Your task to perform on an android device: install app "Pinterest" Image 0: 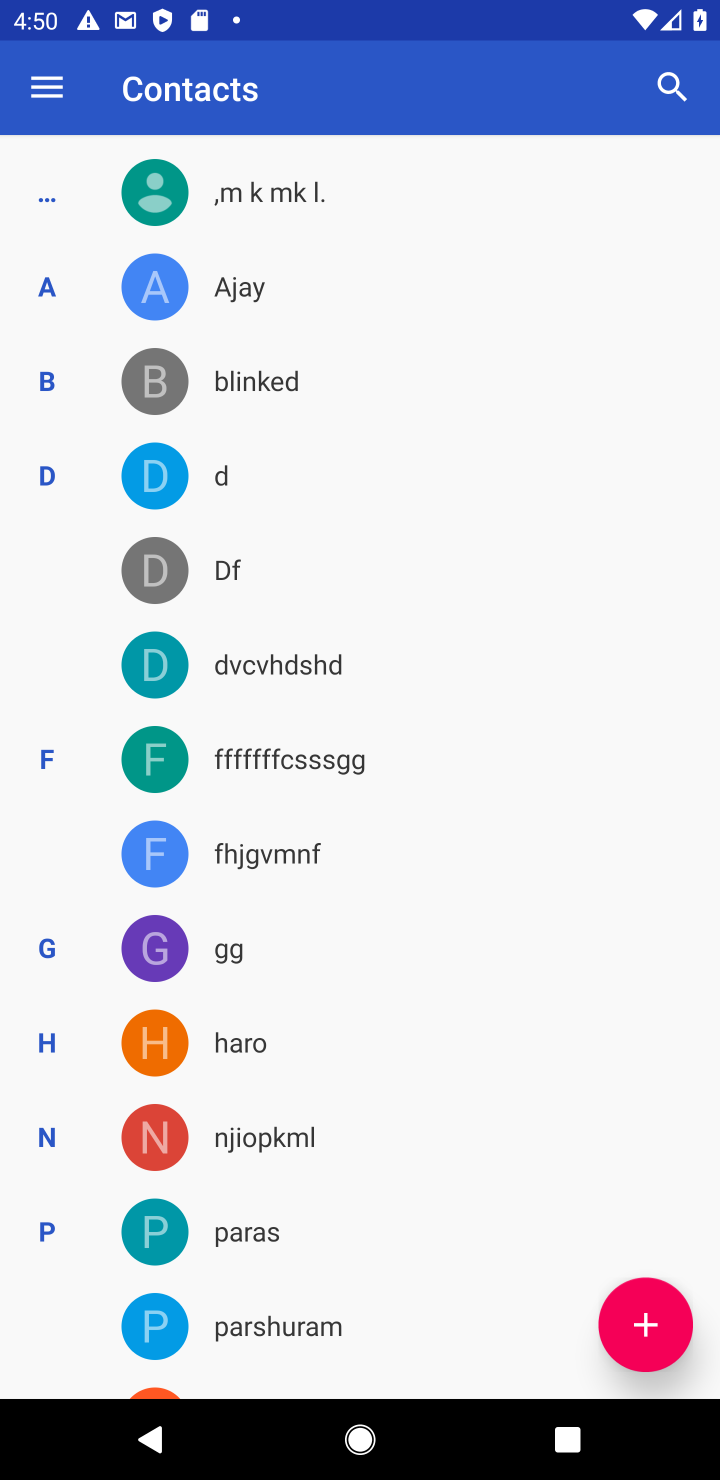
Step 0: press home button
Your task to perform on an android device: install app "Pinterest" Image 1: 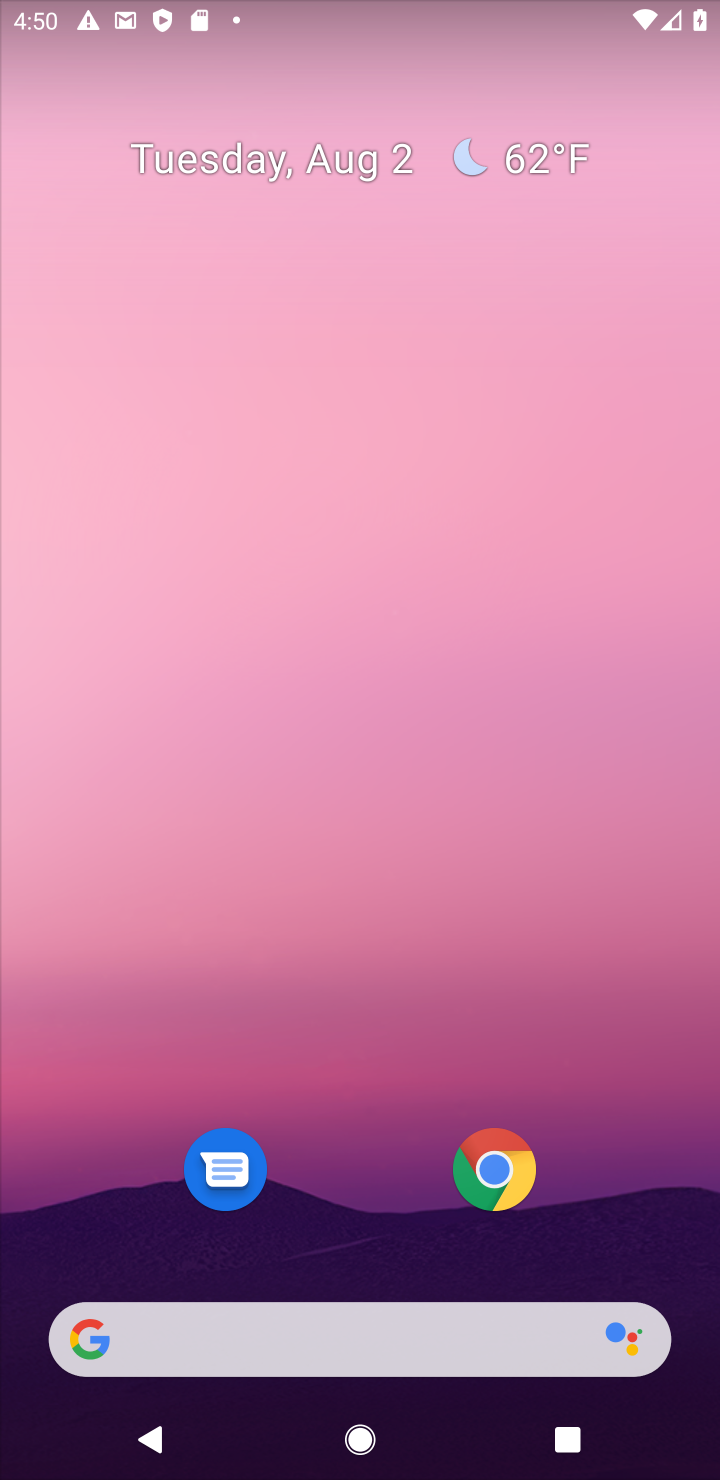
Step 1: drag from (610, 1056) to (484, 522)
Your task to perform on an android device: install app "Pinterest" Image 2: 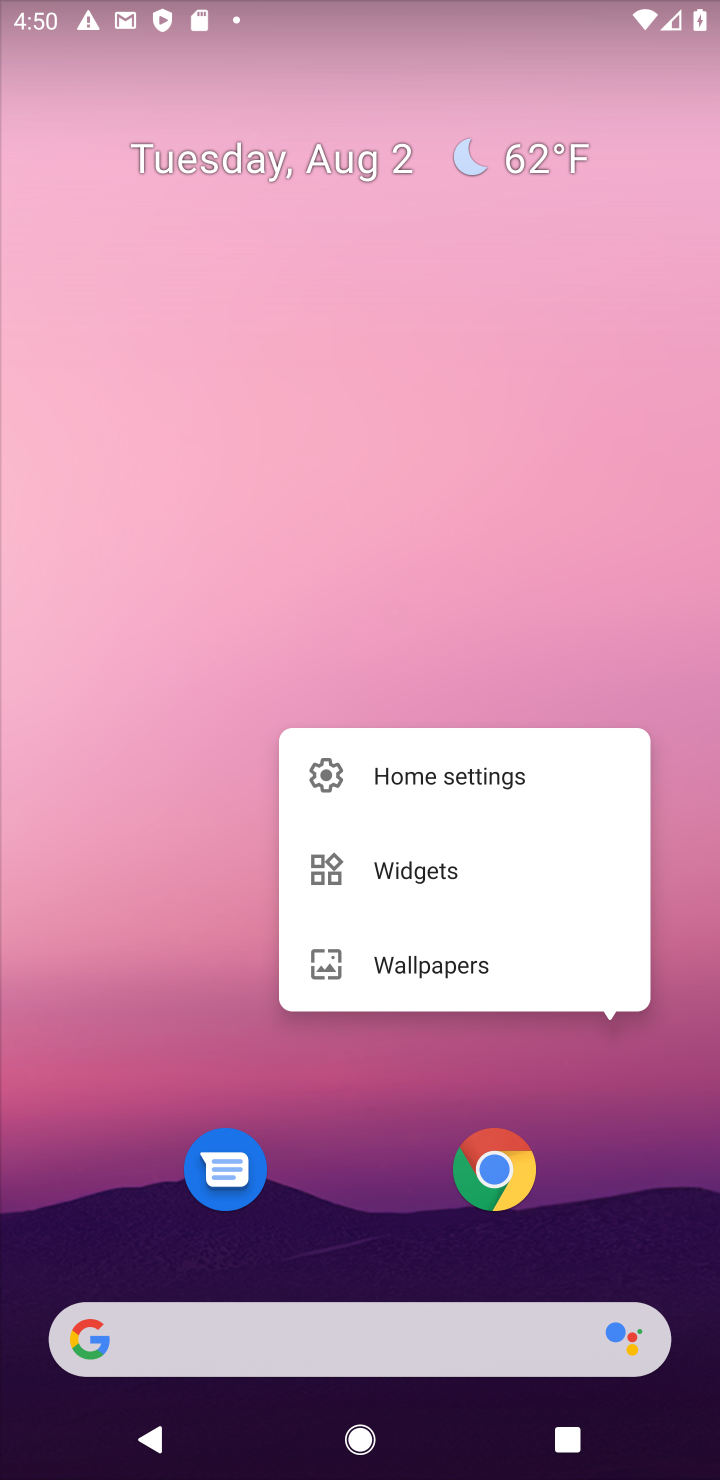
Step 2: click (619, 1127)
Your task to perform on an android device: install app "Pinterest" Image 3: 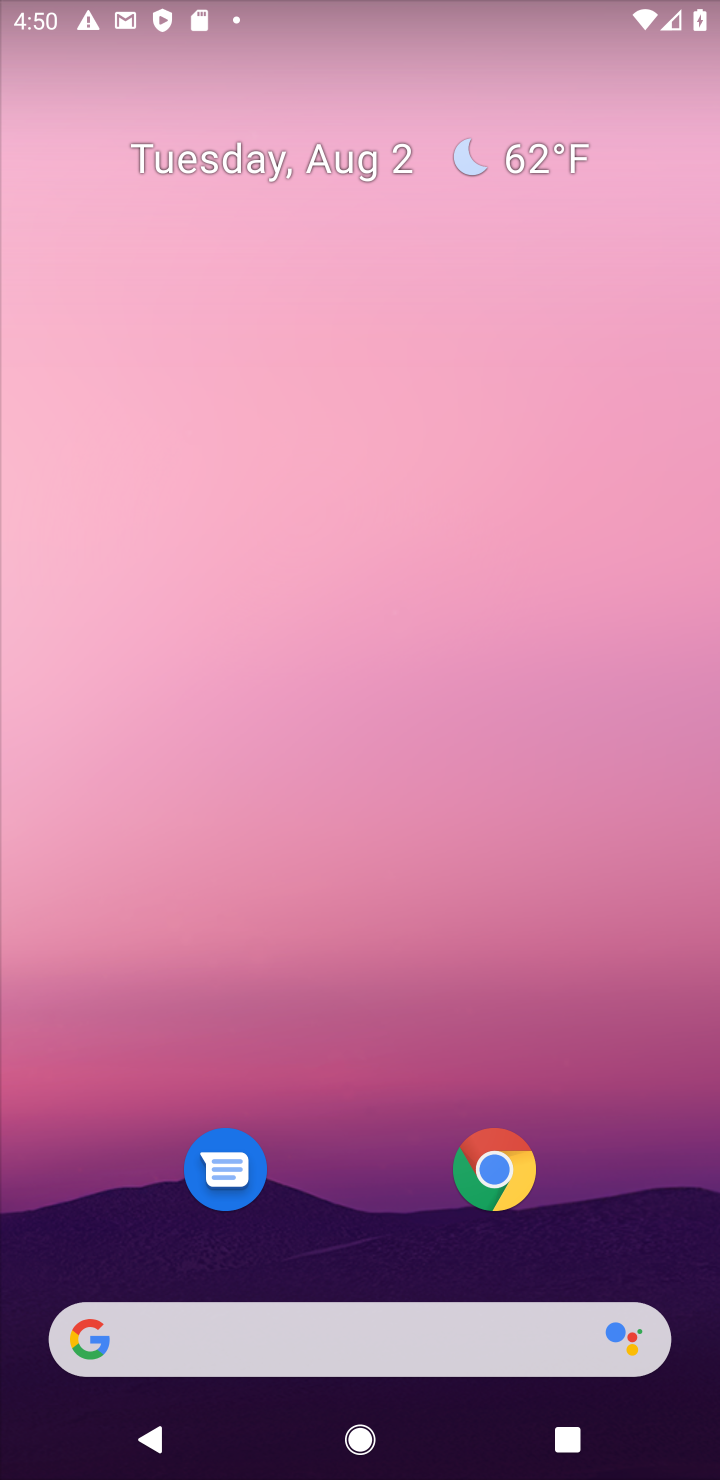
Step 3: drag from (625, 1153) to (397, 249)
Your task to perform on an android device: install app "Pinterest" Image 4: 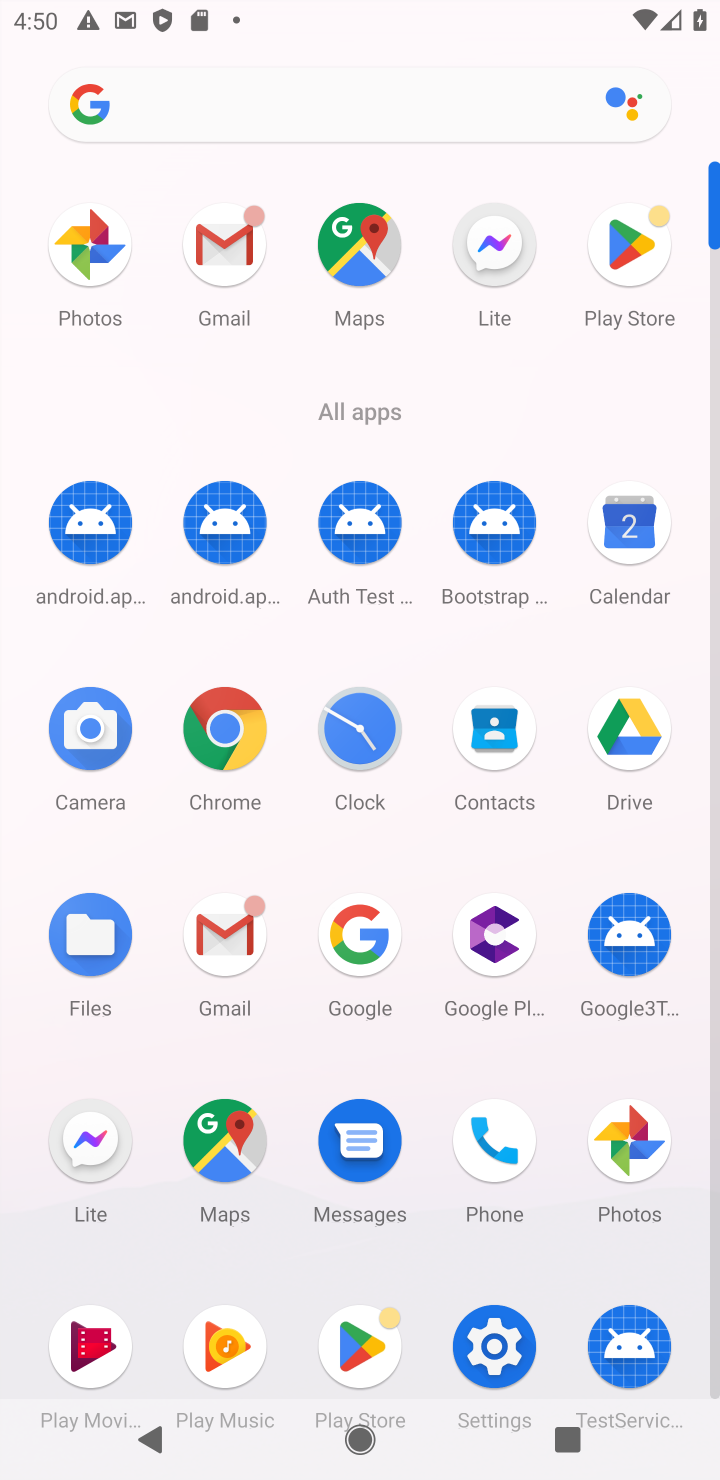
Step 4: click (639, 265)
Your task to perform on an android device: install app "Pinterest" Image 5: 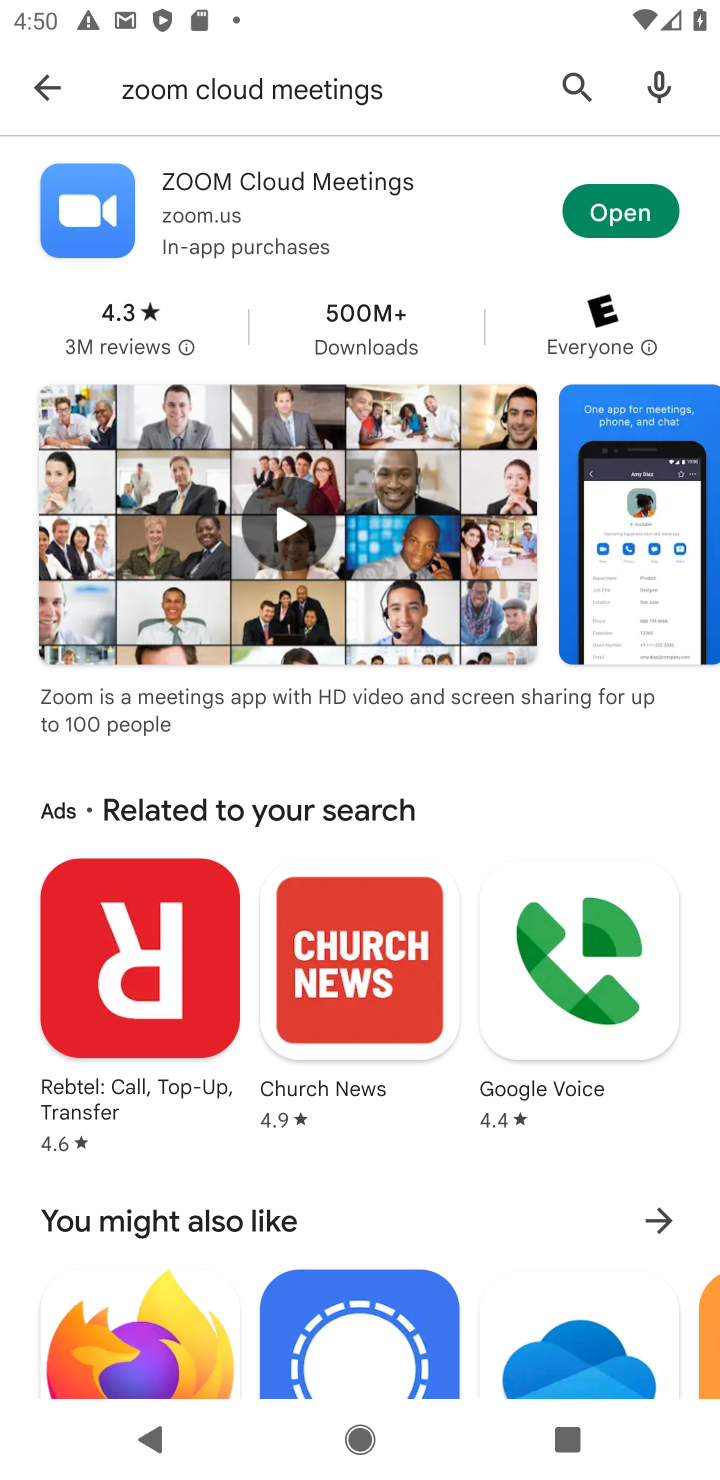
Step 5: click (562, 84)
Your task to perform on an android device: install app "Pinterest" Image 6: 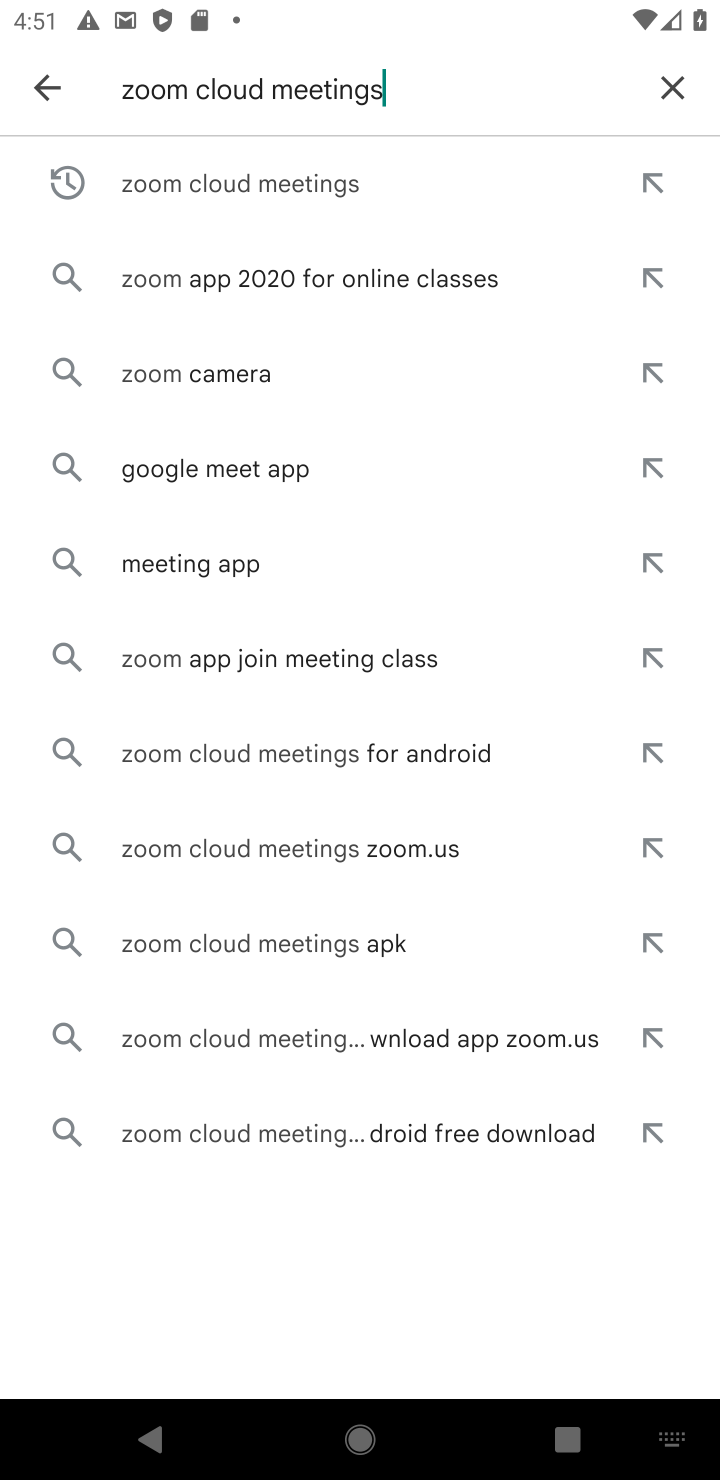
Step 6: click (685, 90)
Your task to perform on an android device: install app "Pinterest" Image 7: 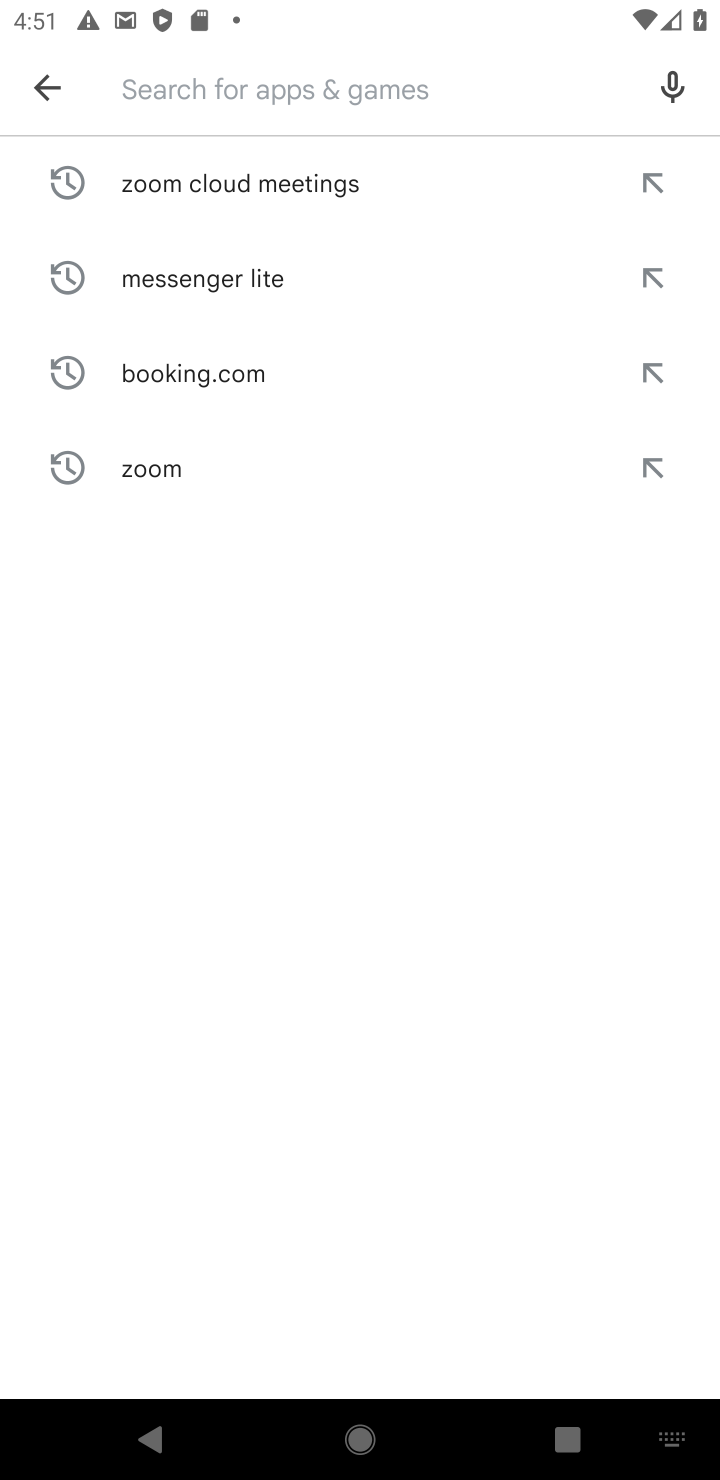
Step 7: type "pinterest"
Your task to perform on an android device: install app "Pinterest" Image 8: 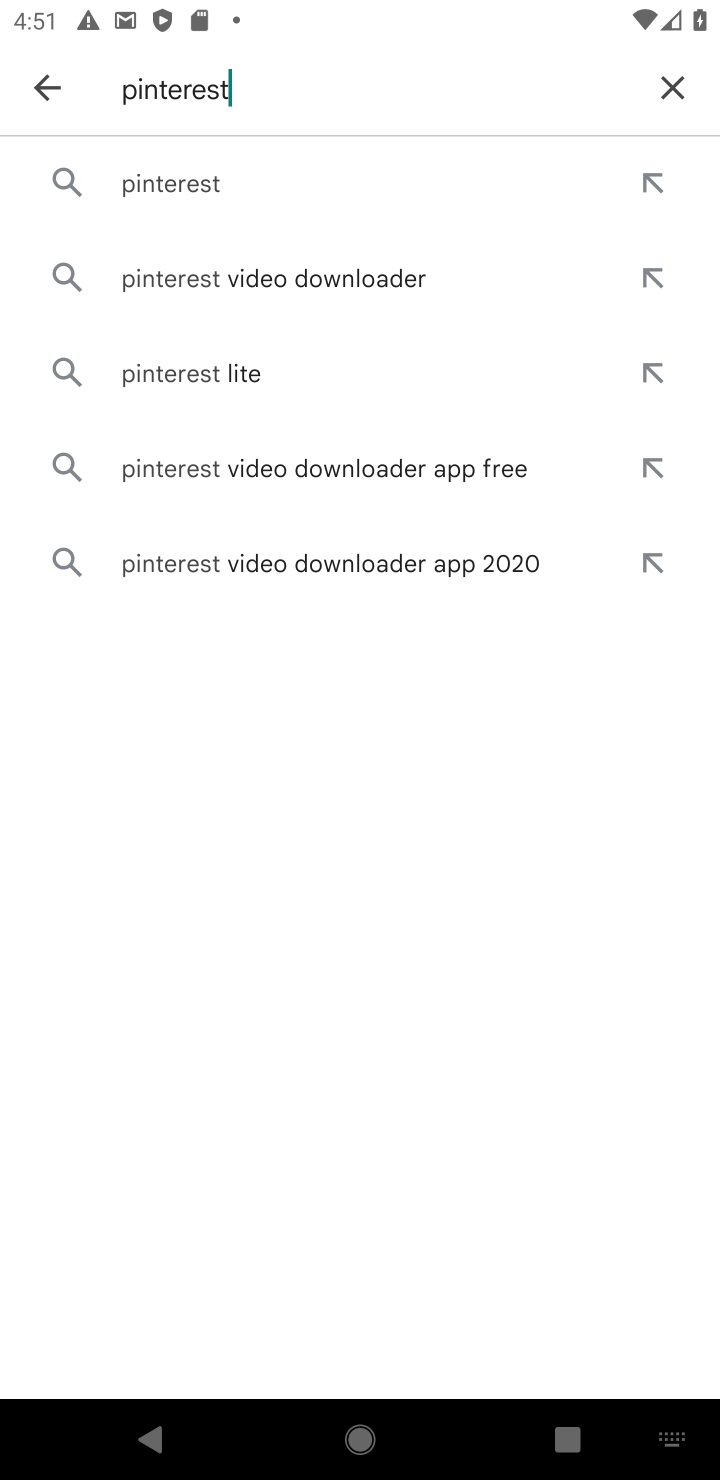
Step 8: click (376, 176)
Your task to perform on an android device: install app "Pinterest" Image 9: 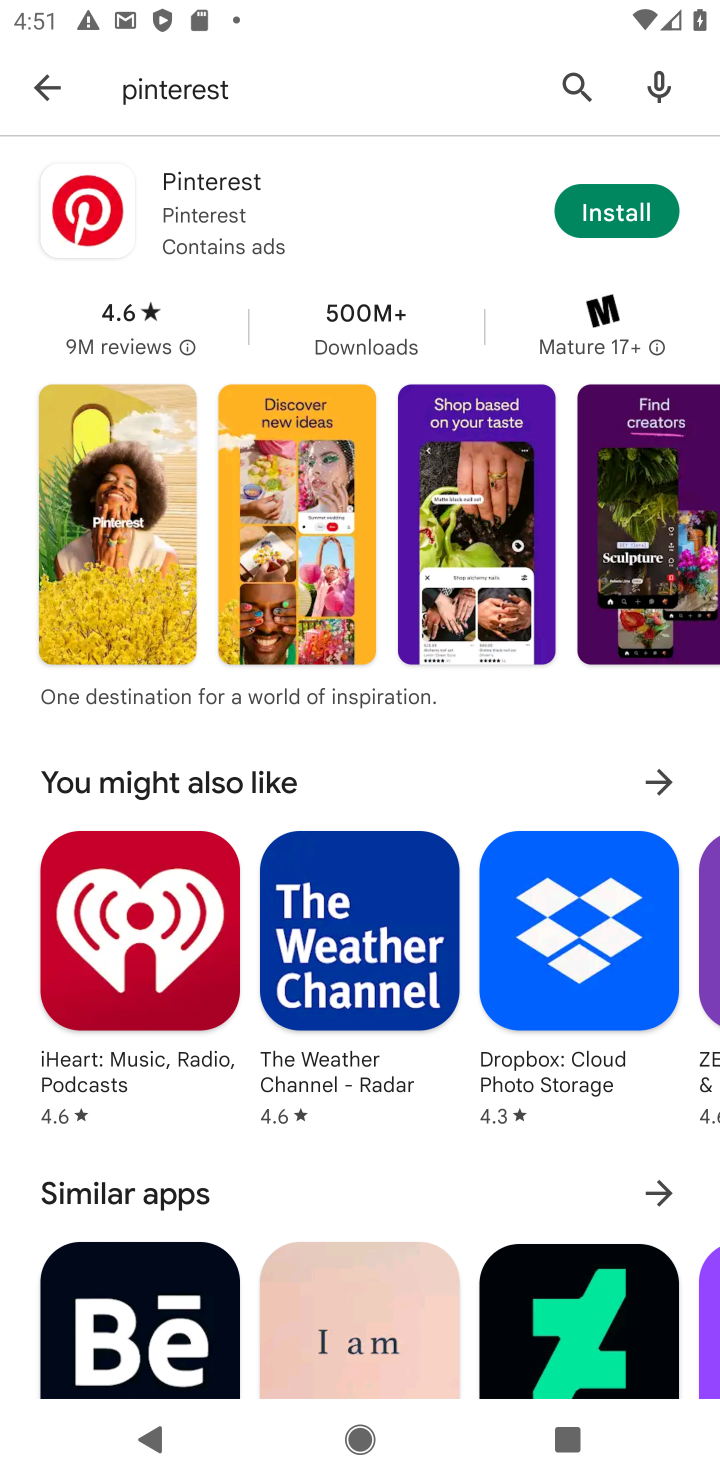
Step 9: click (610, 214)
Your task to perform on an android device: install app "Pinterest" Image 10: 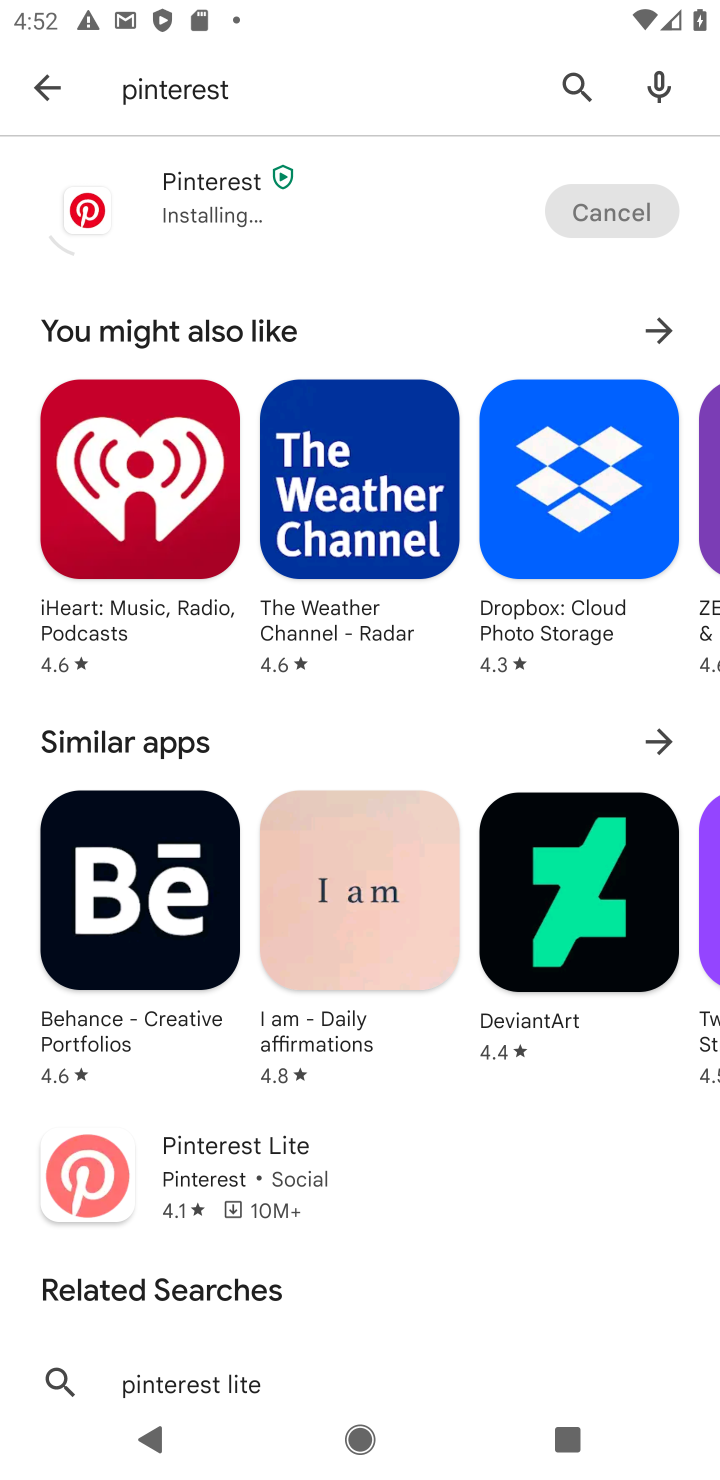
Step 10: click (474, 338)
Your task to perform on an android device: install app "Pinterest" Image 11: 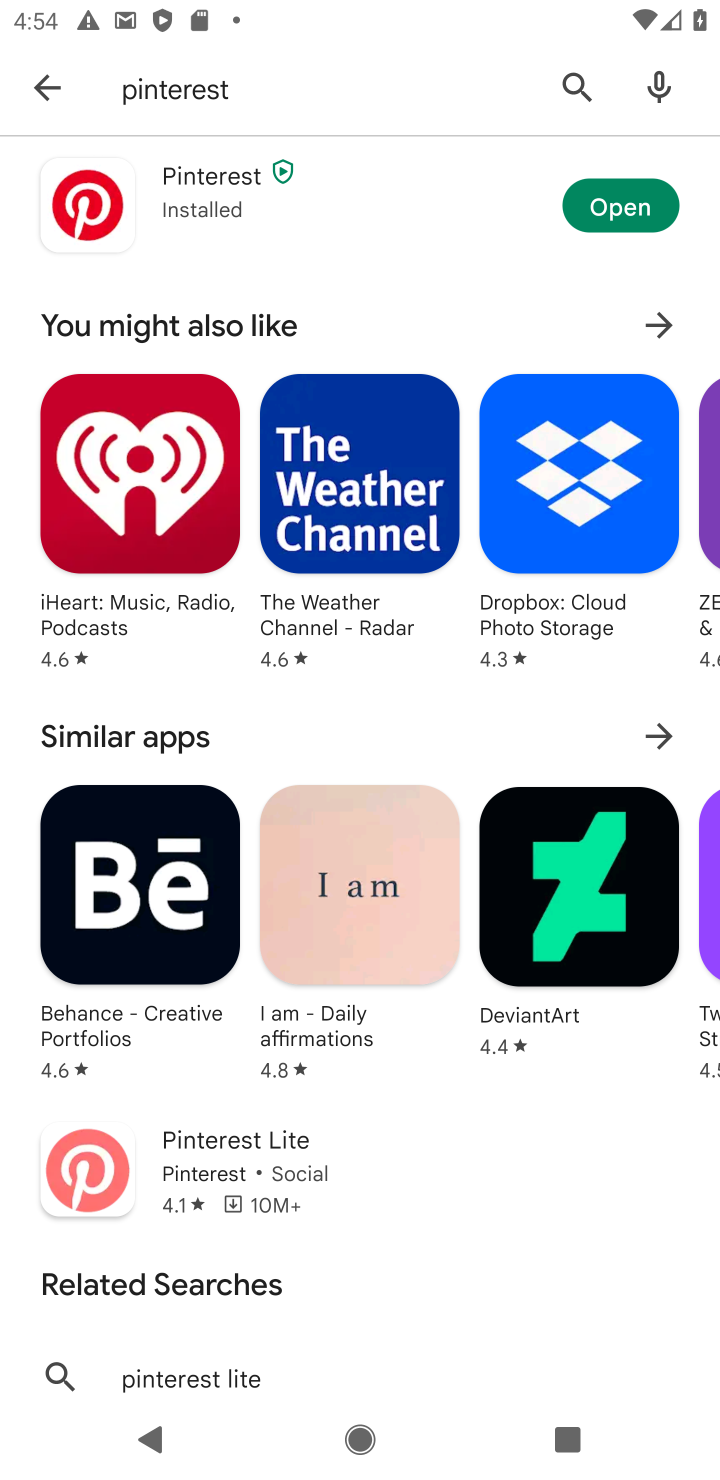
Step 11: task complete